Your task to perform on an android device: open sync settings in chrome Image 0: 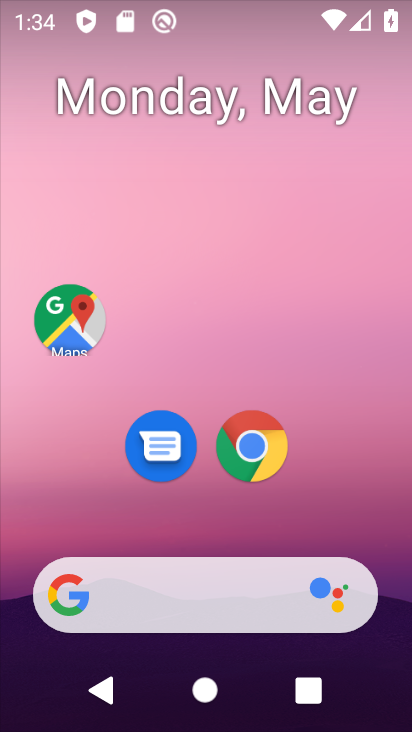
Step 0: click (247, 448)
Your task to perform on an android device: open sync settings in chrome Image 1: 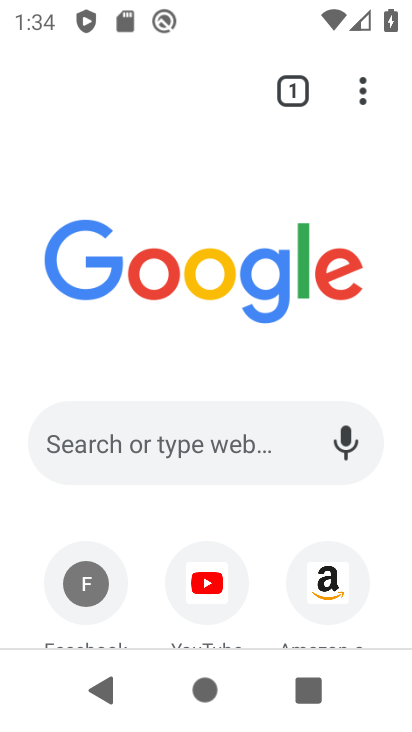
Step 1: drag from (363, 109) to (132, 470)
Your task to perform on an android device: open sync settings in chrome Image 2: 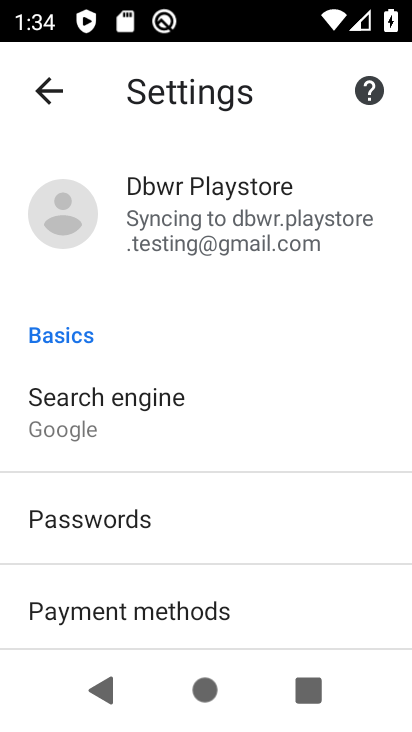
Step 2: click (190, 211)
Your task to perform on an android device: open sync settings in chrome Image 3: 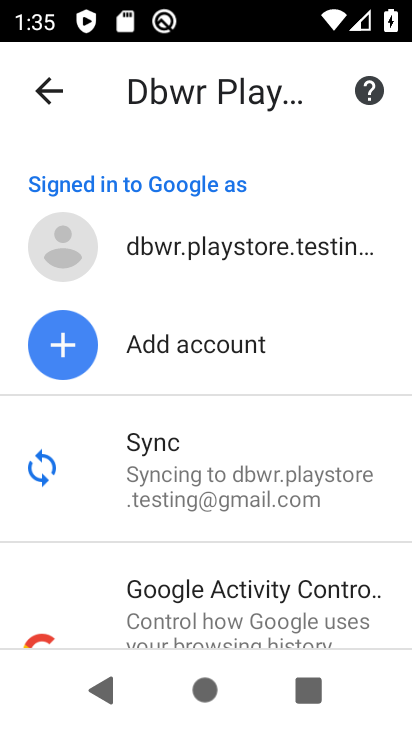
Step 3: click (190, 211)
Your task to perform on an android device: open sync settings in chrome Image 4: 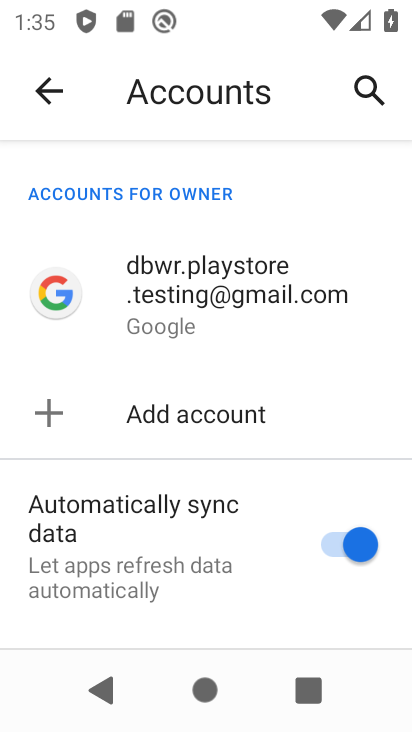
Step 4: task complete